Your task to perform on an android device: turn off notifications in google photos Image 0: 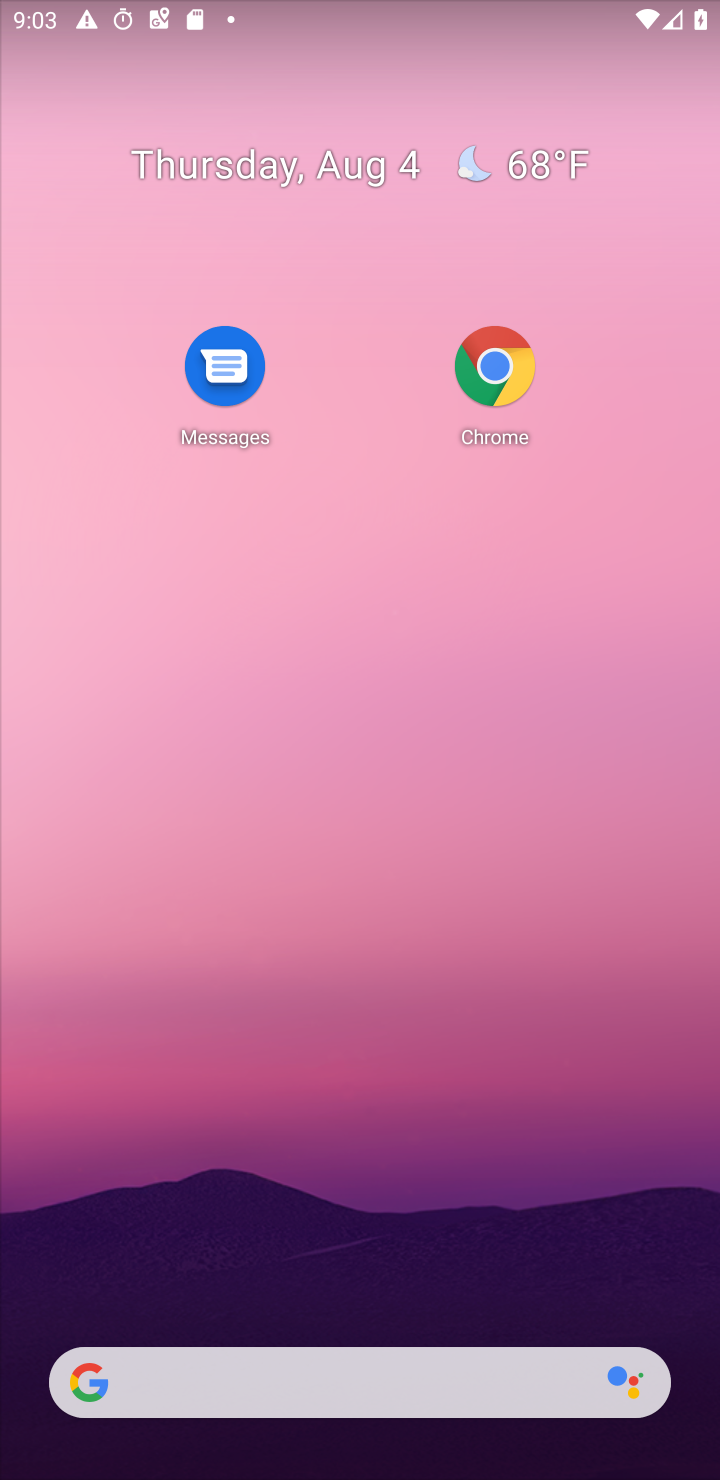
Step 0: press home button
Your task to perform on an android device: turn off notifications in google photos Image 1: 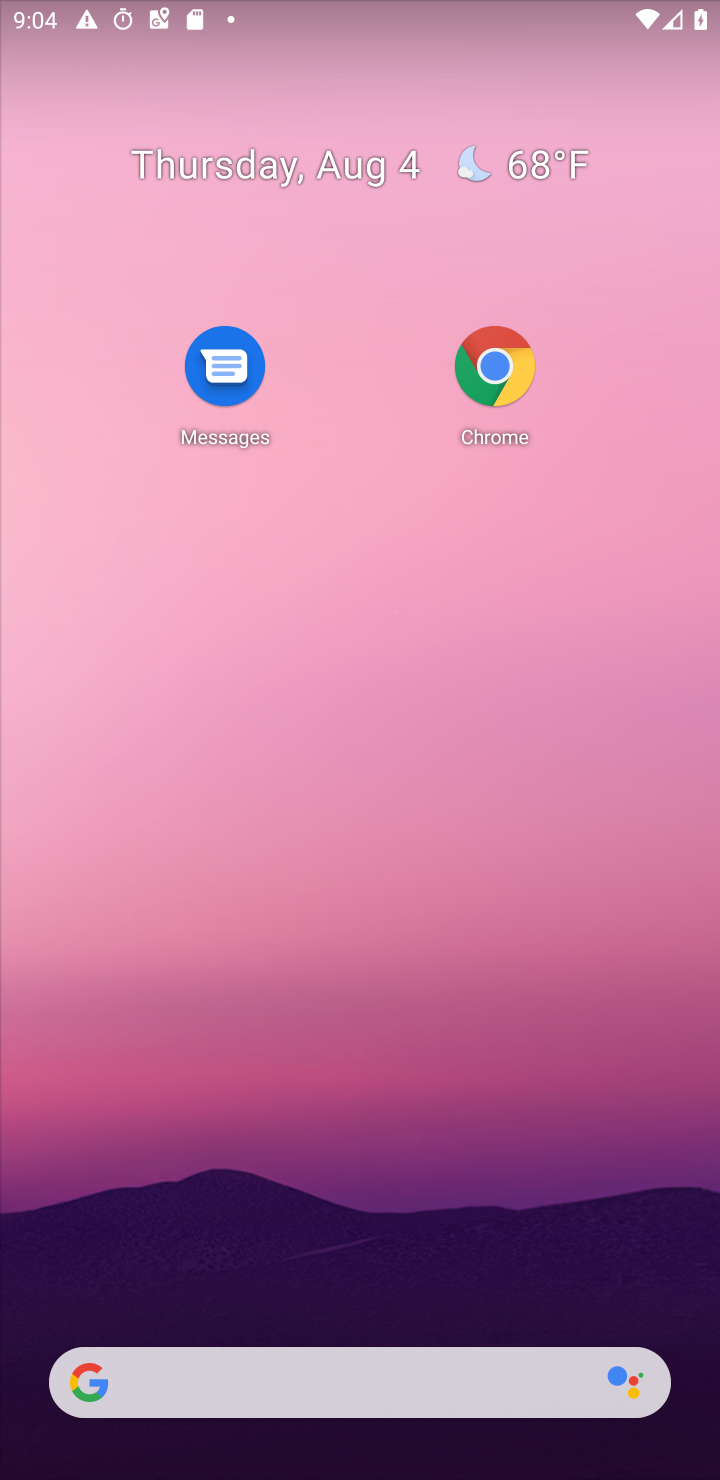
Step 1: drag from (374, 1139) to (391, 53)
Your task to perform on an android device: turn off notifications in google photos Image 2: 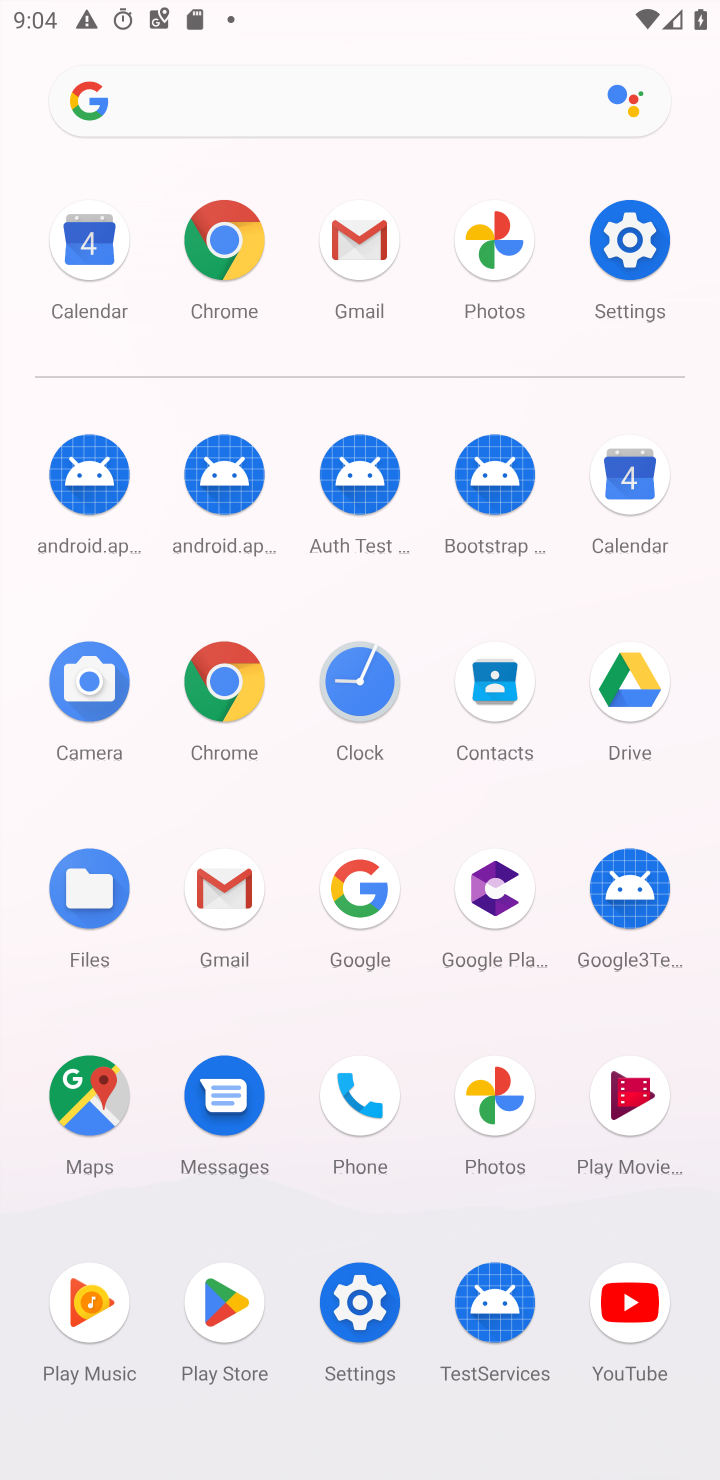
Step 2: click (487, 1080)
Your task to perform on an android device: turn off notifications in google photos Image 3: 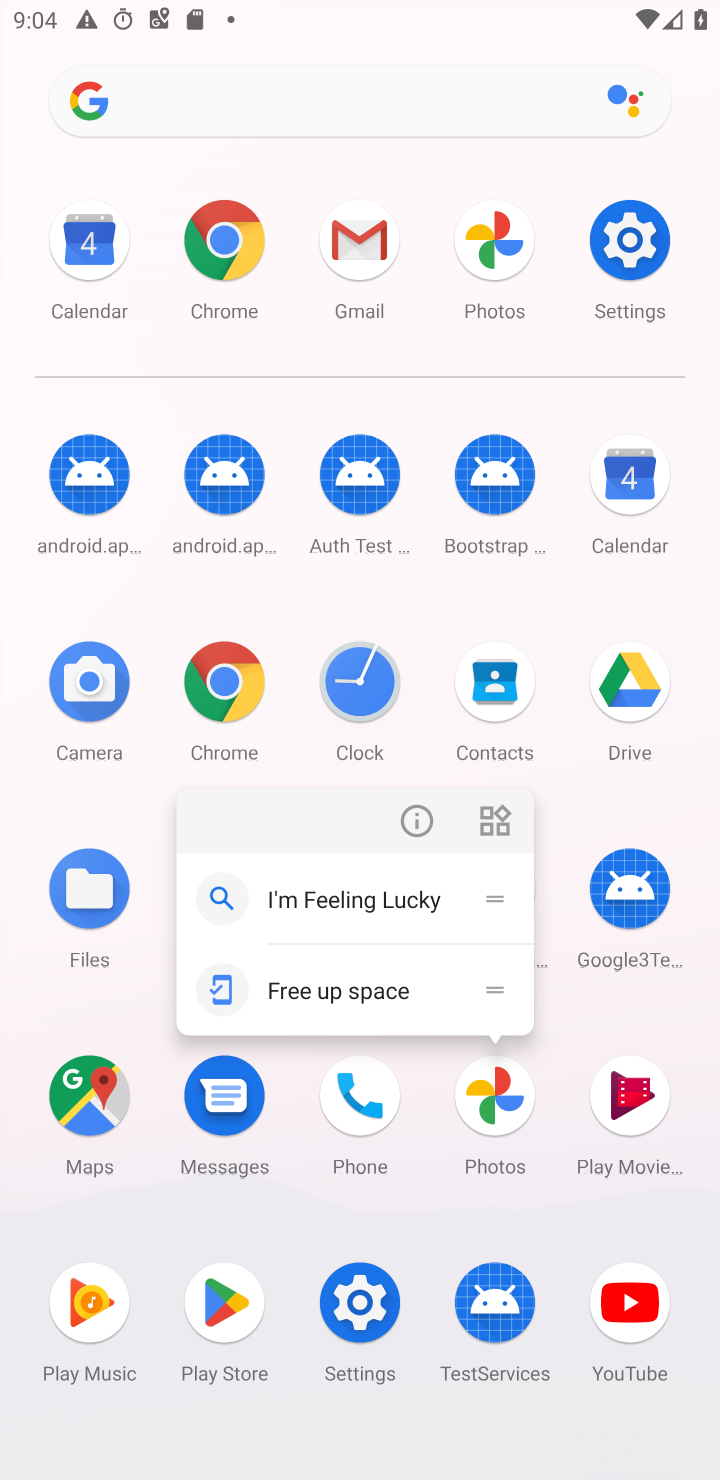
Step 3: click (494, 1106)
Your task to perform on an android device: turn off notifications in google photos Image 4: 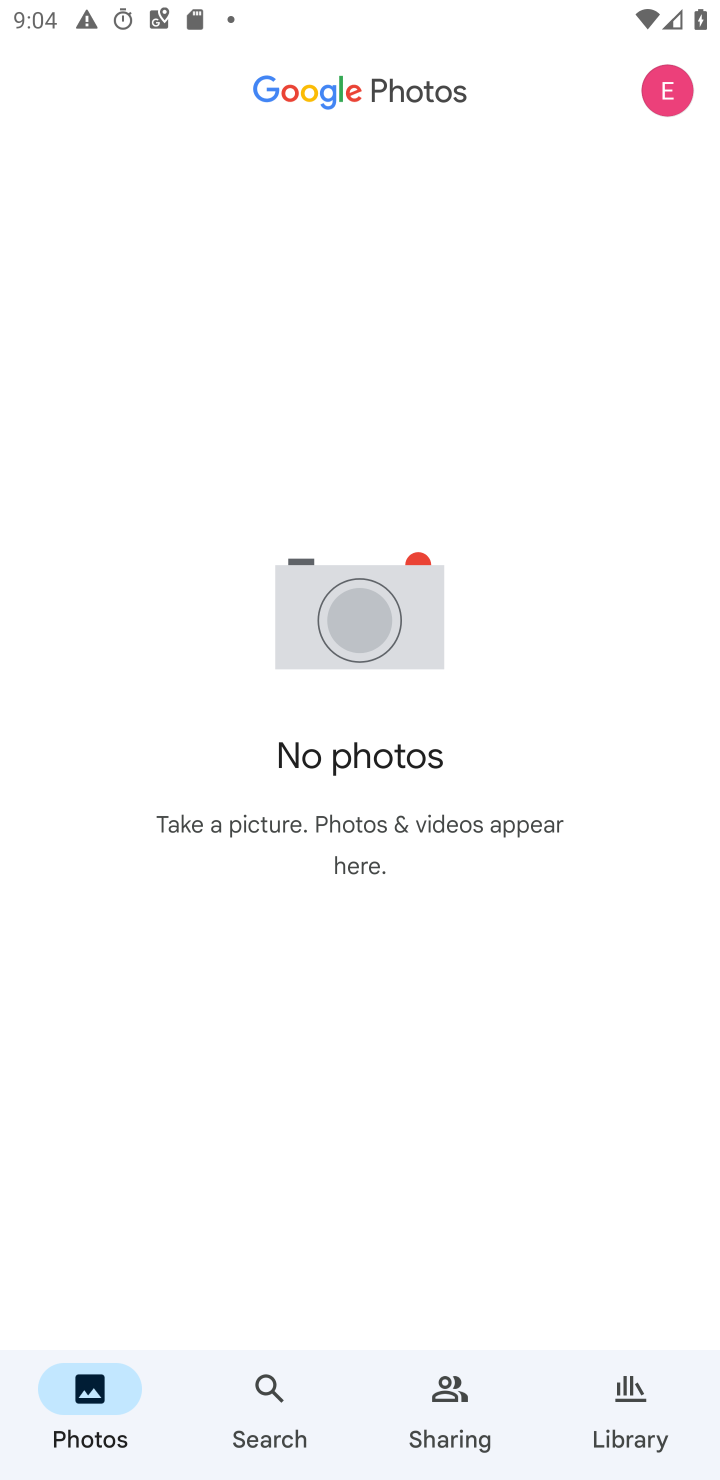
Step 4: click (657, 104)
Your task to perform on an android device: turn off notifications in google photos Image 5: 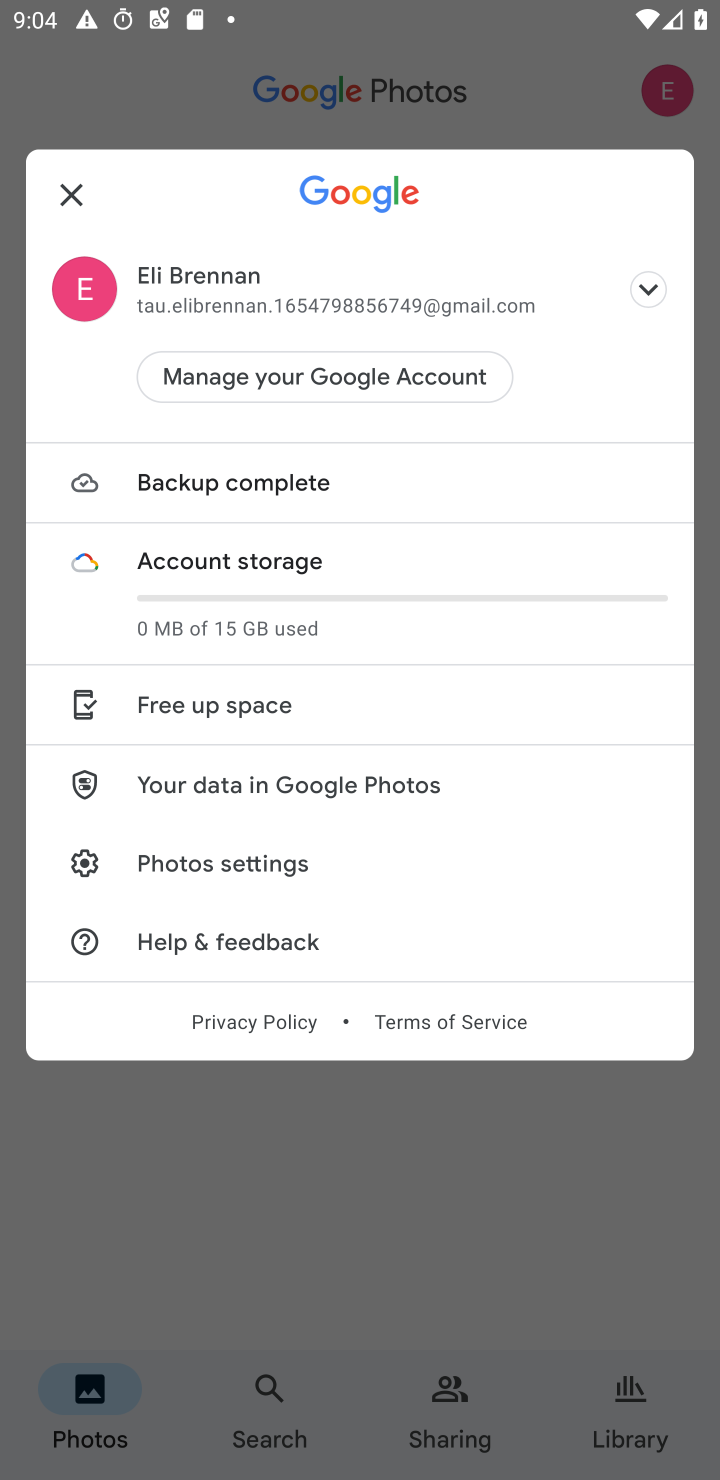
Step 5: click (237, 874)
Your task to perform on an android device: turn off notifications in google photos Image 6: 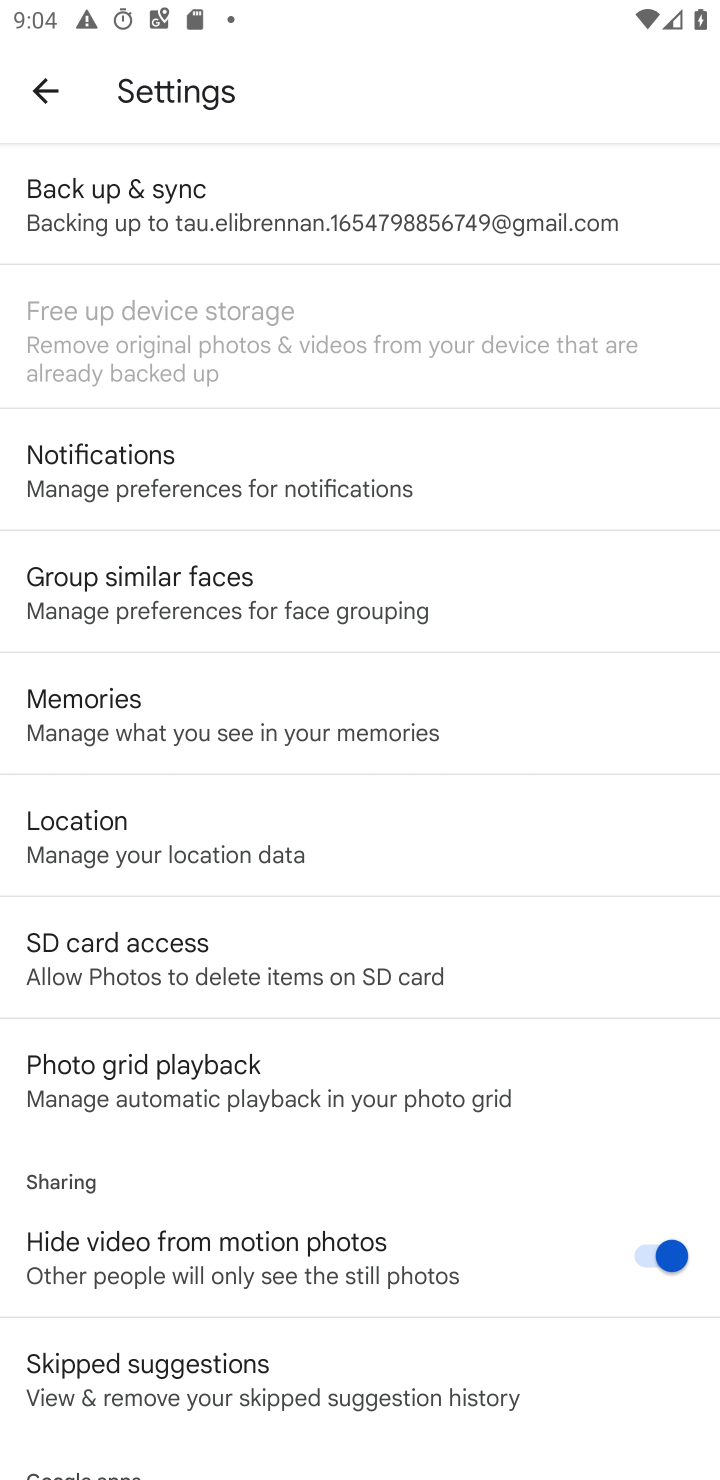
Step 6: click (236, 483)
Your task to perform on an android device: turn off notifications in google photos Image 7: 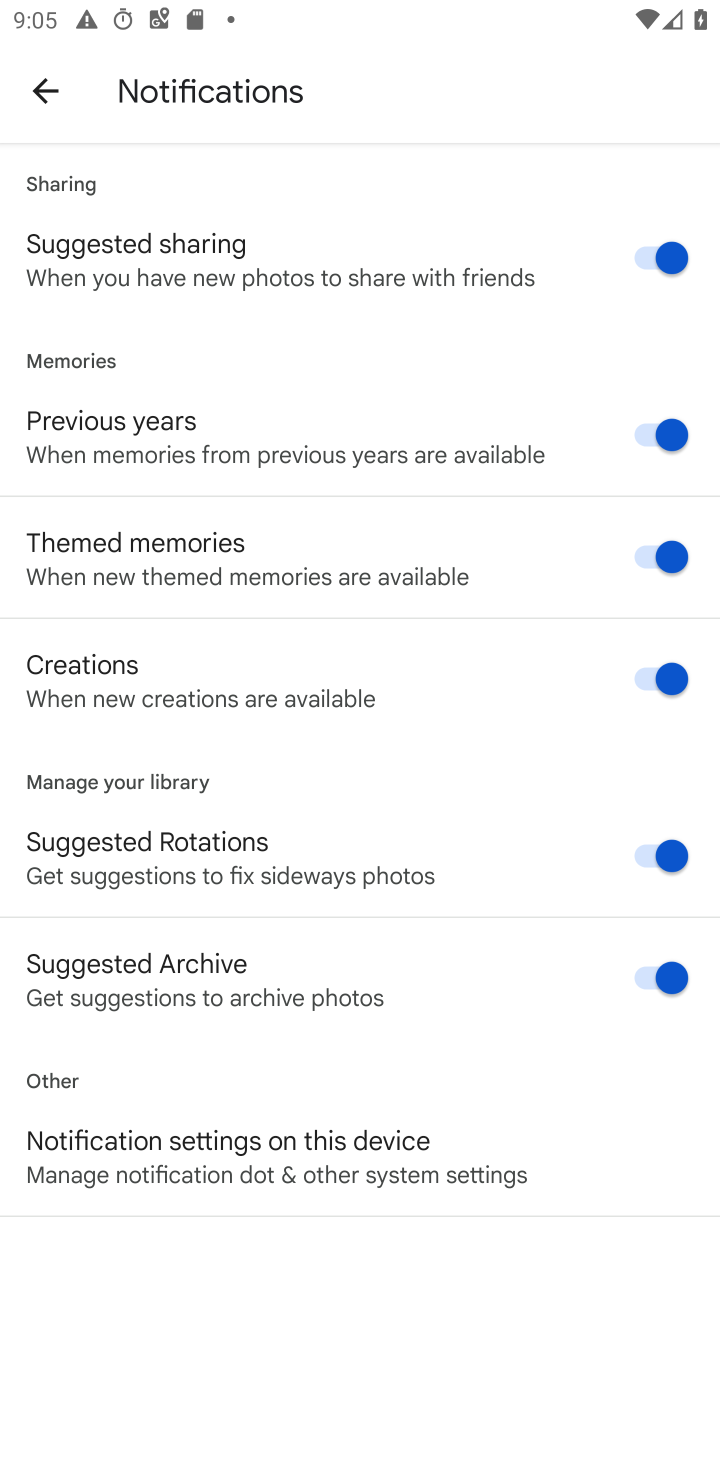
Step 7: click (300, 1128)
Your task to perform on an android device: turn off notifications in google photos Image 8: 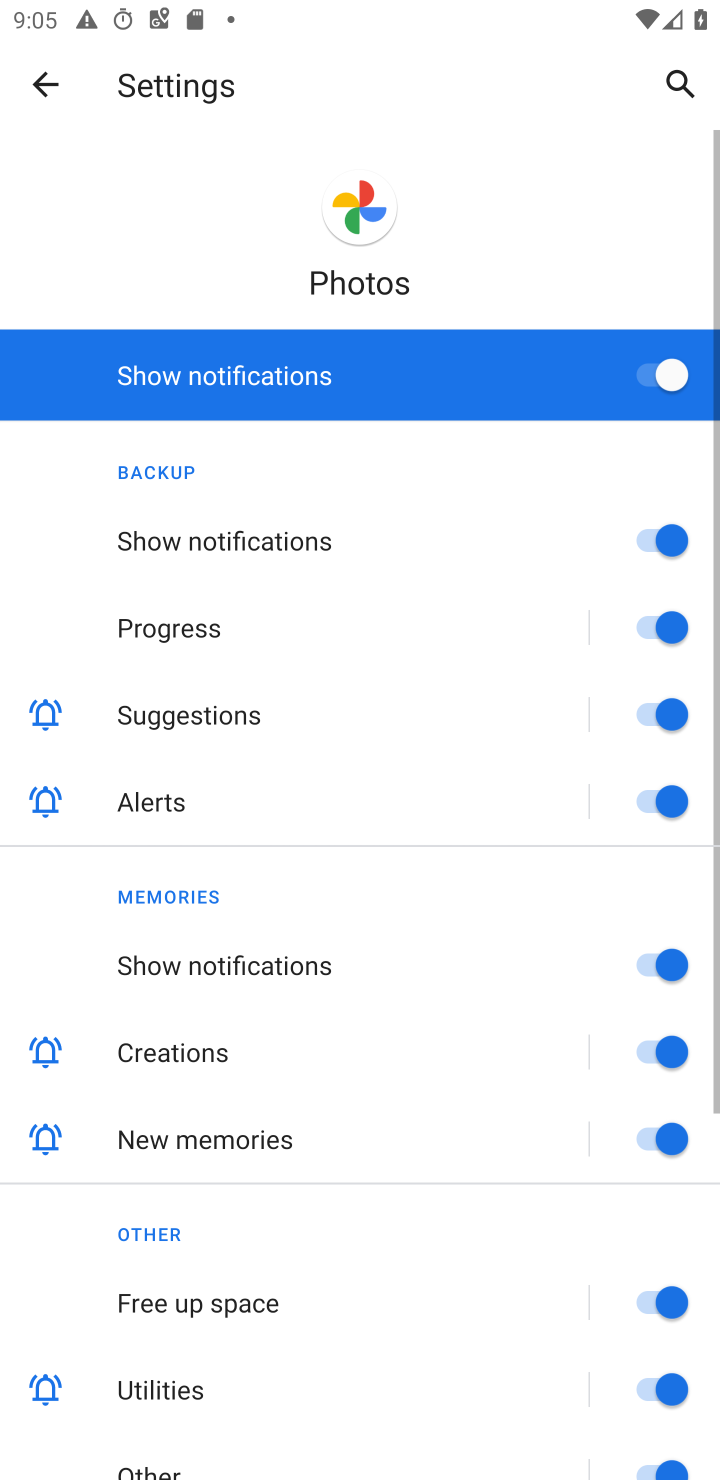
Step 8: click (655, 366)
Your task to perform on an android device: turn off notifications in google photos Image 9: 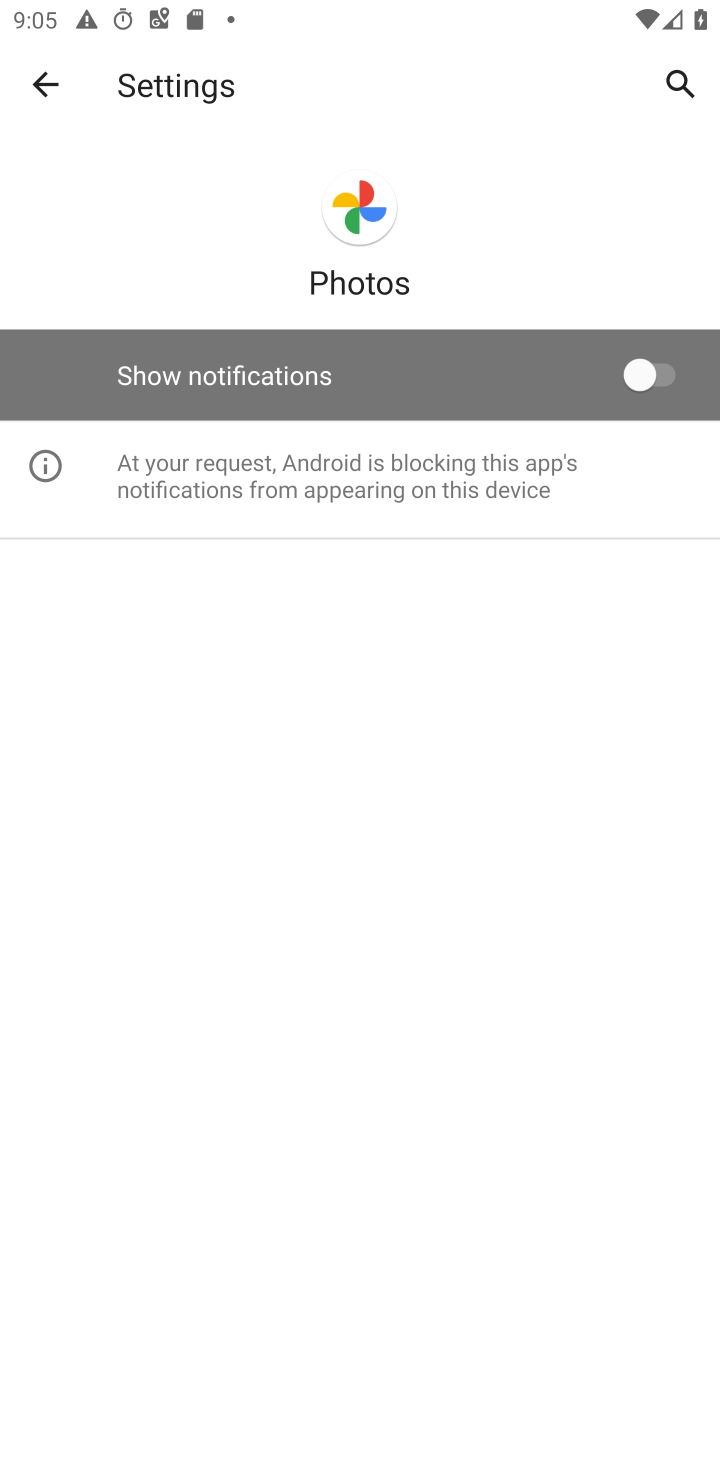
Step 9: task complete